Your task to perform on an android device: open app "Messenger Lite" (install if not already installed), go to login, and select forgot password Image 0: 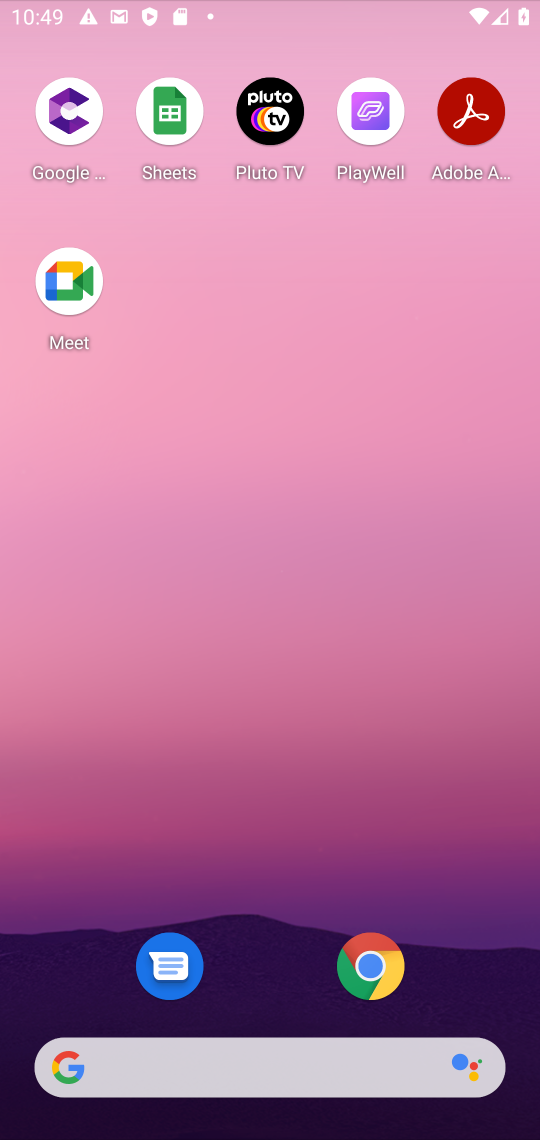
Step 0: press home button
Your task to perform on an android device: open app "Messenger Lite" (install if not already installed), go to login, and select forgot password Image 1: 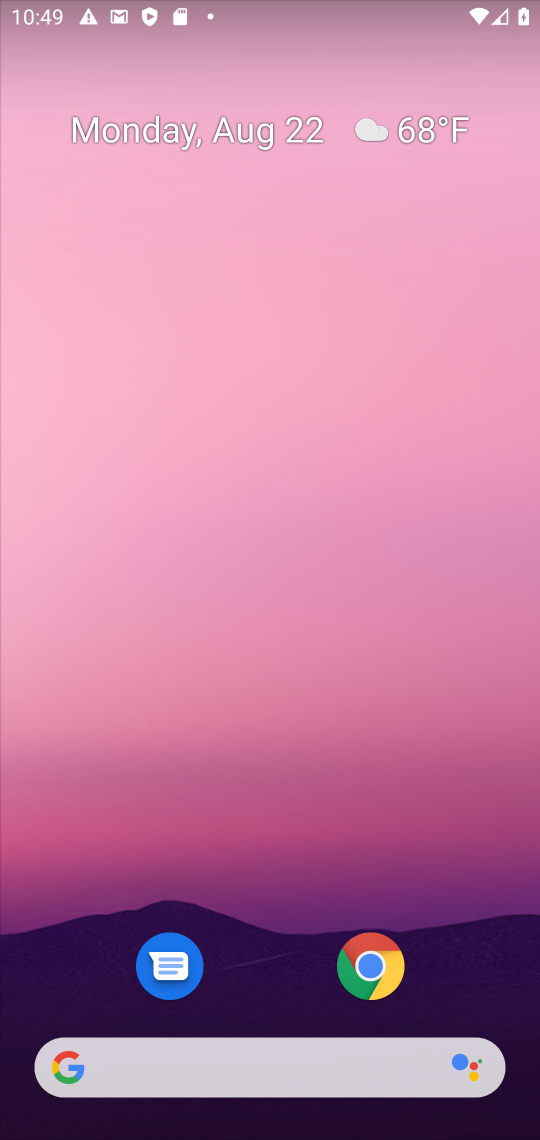
Step 1: drag from (461, 952) to (429, 119)
Your task to perform on an android device: open app "Messenger Lite" (install if not already installed), go to login, and select forgot password Image 2: 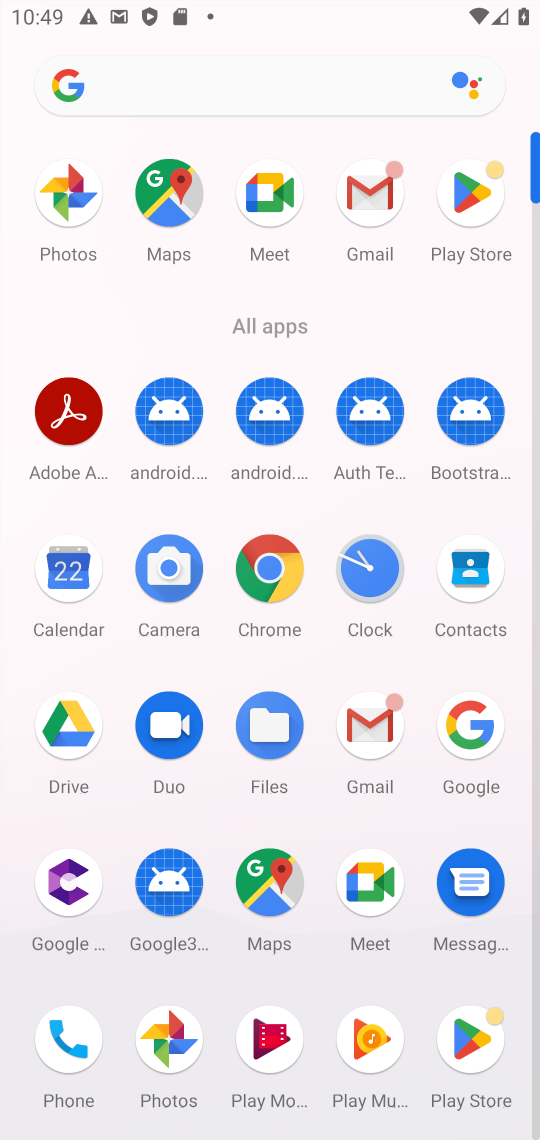
Step 2: click (465, 189)
Your task to perform on an android device: open app "Messenger Lite" (install if not already installed), go to login, and select forgot password Image 3: 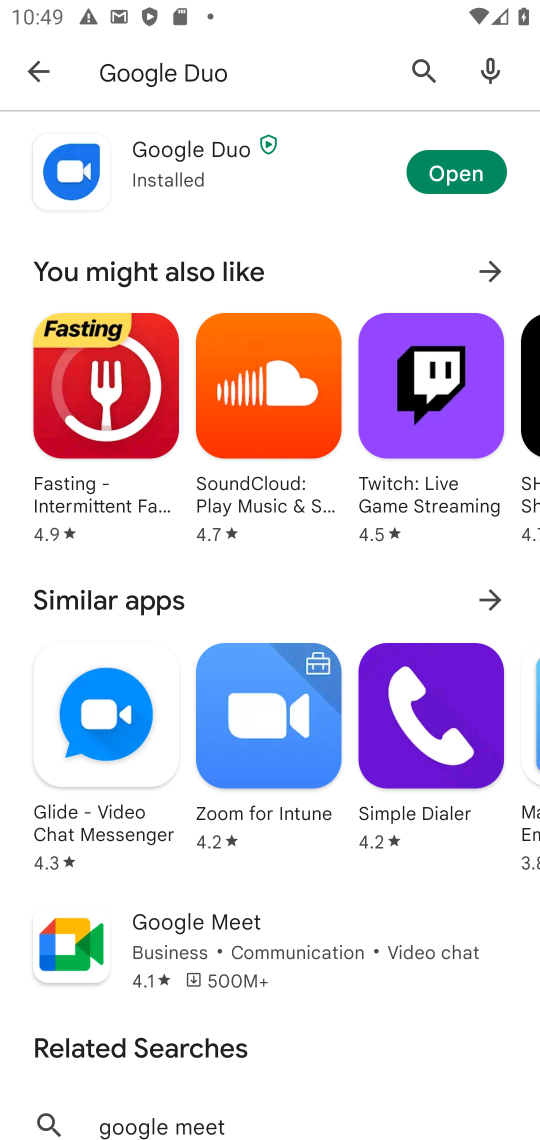
Step 3: press back button
Your task to perform on an android device: open app "Messenger Lite" (install if not already installed), go to login, and select forgot password Image 4: 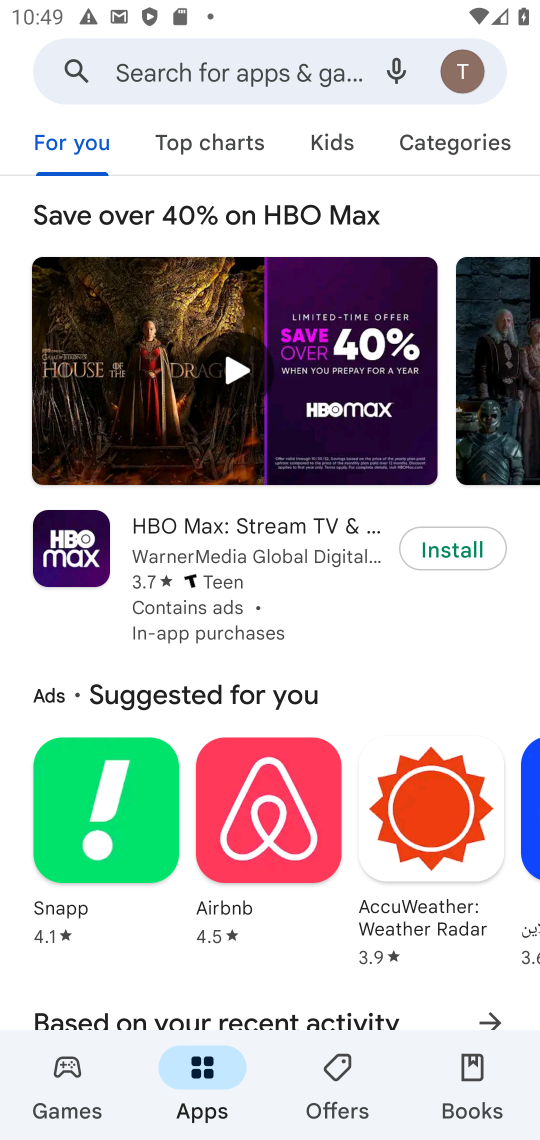
Step 4: click (210, 68)
Your task to perform on an android device: open app "Messenger Lite" (install if not already installed), go to login, and select forgot password Image 5: 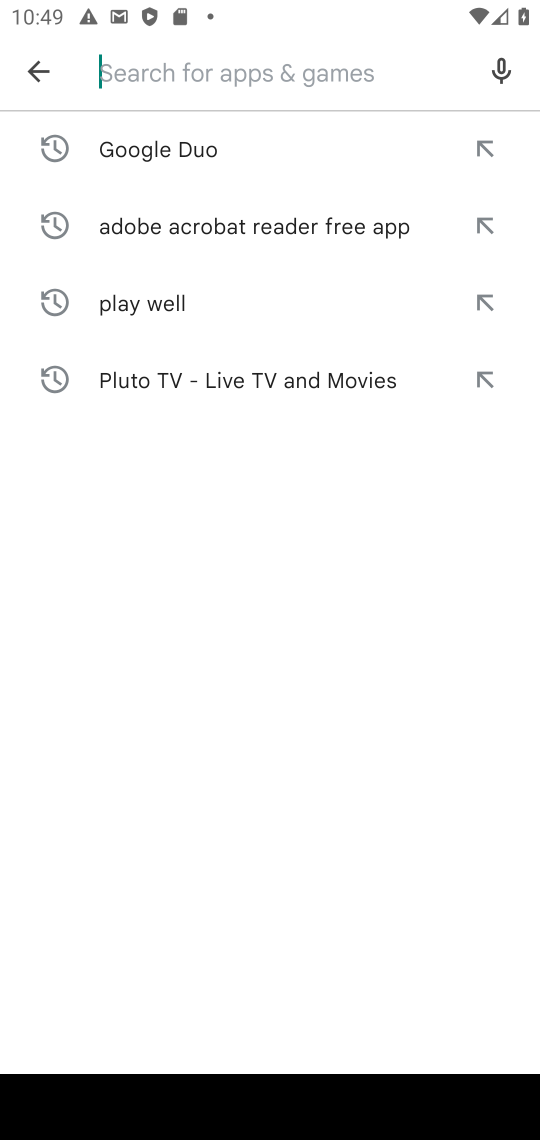
Step 5: type "Messenger Lite"
Your task to perform on an android device: open app "Messenger Lite" (install if not already installed), go to login, and select forgot password Image 6: 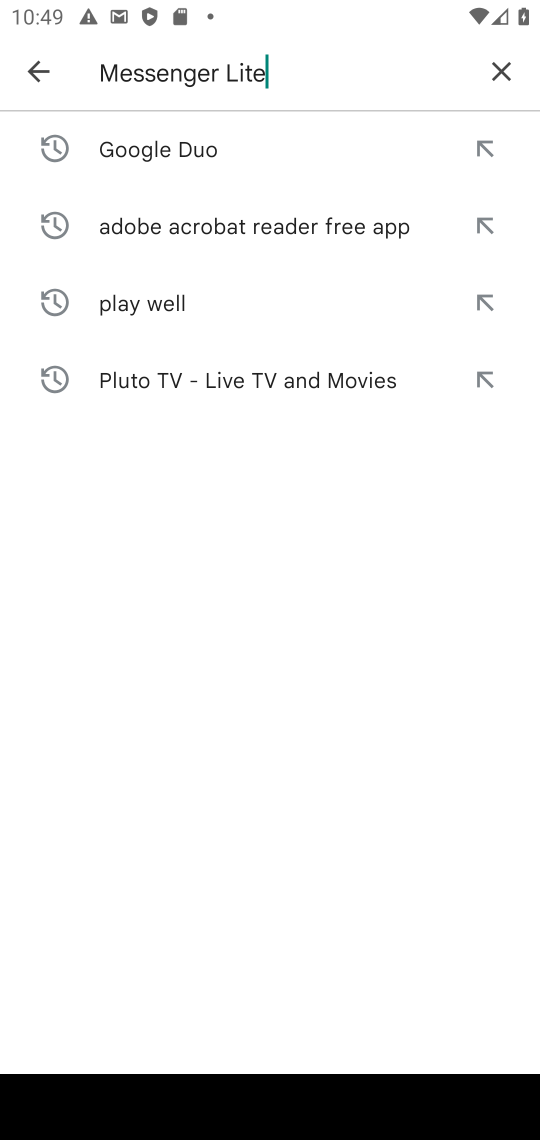
Step 6: press enter
Your task to perform on an android device: open app "Messenger Lite" (install if not already installed), go to login, and select forgot password Image 7: 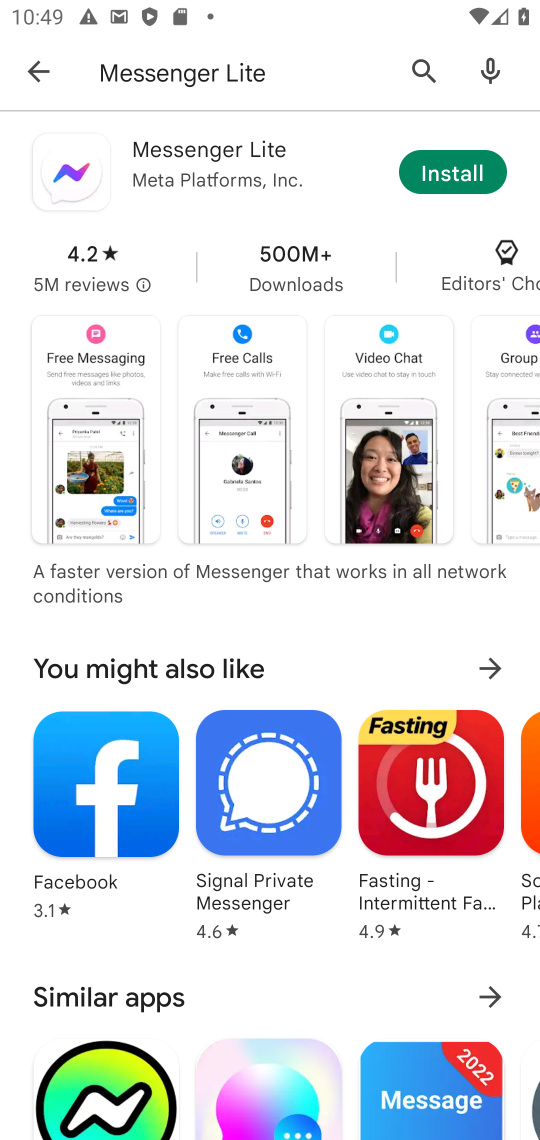
Step 7: click (449, 164)
Your task to perform on an android device: open app "Messenger Lite" (install if not already installed), go to login, and select forgot password Image 8: 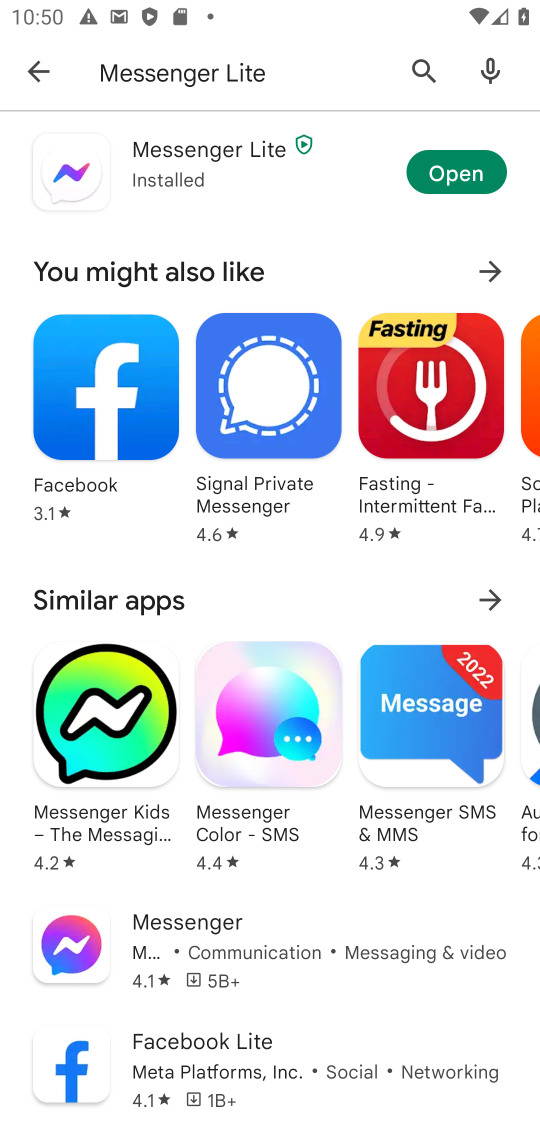
Step 8: click (452, 160)
Your task to perform on an android device: open app "Messenger Lite" (install if not already installed), go to login, and select forgot password Image 9: 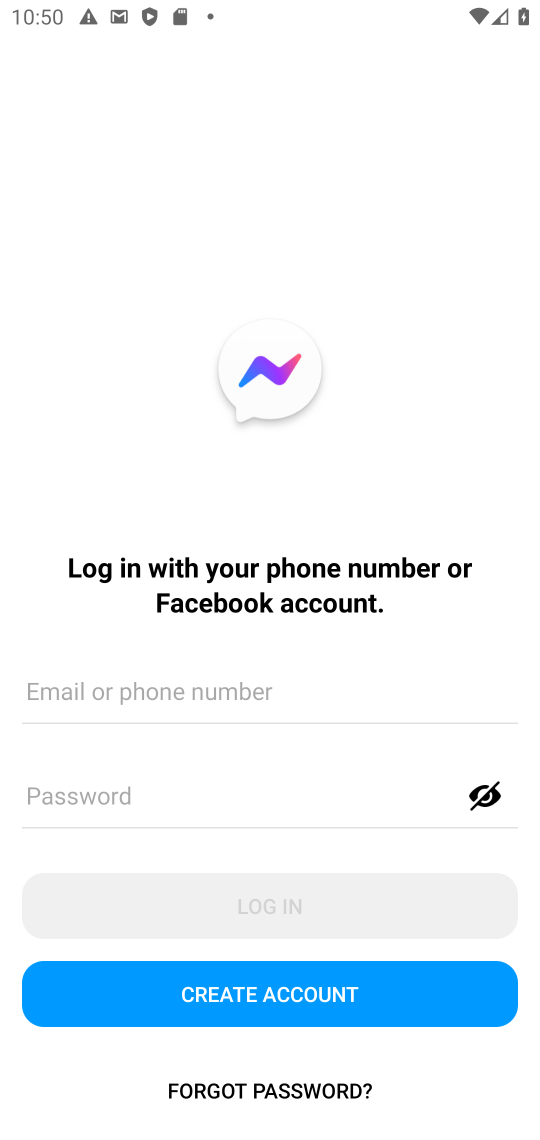
Step 9: task complete